Your task to perform on an android device: toggle location history Image 0: 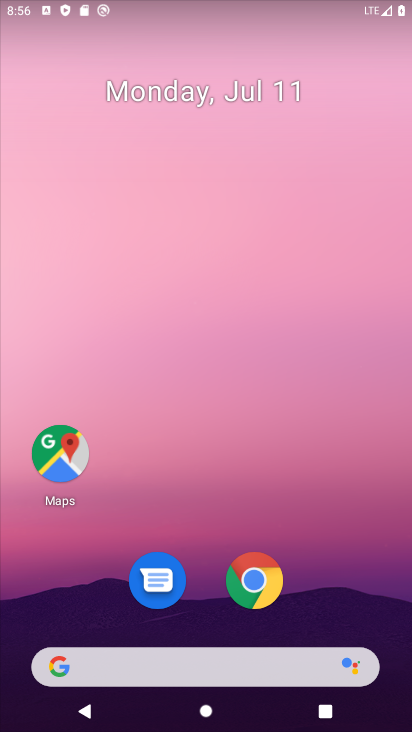
Step 0: drag from (318, 565) to (295, 0)
Your task to perform on an android device: toggle location history Image 1: 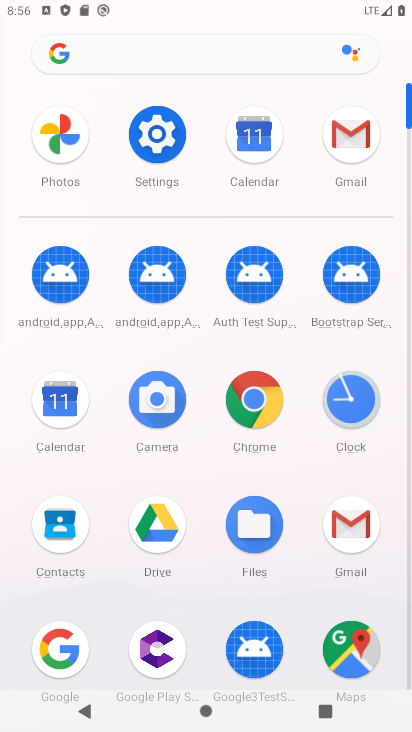
Step 1: click (163, 141)
Your task to perform on an android device: toggle location history Image 2: 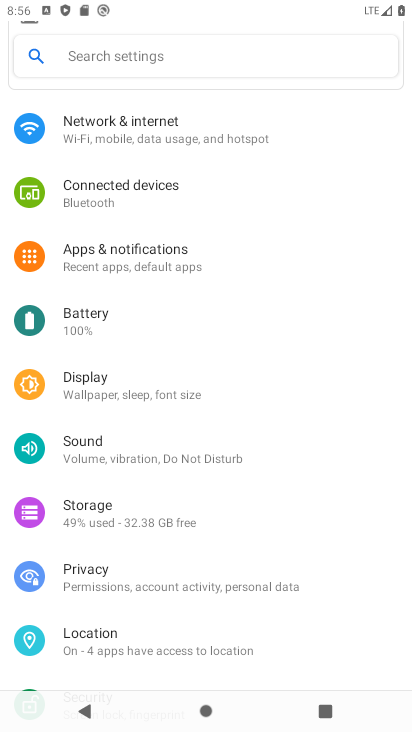
Step 2: click (127, 643)
Your task to perform on an android device: toggle location history Image 3: 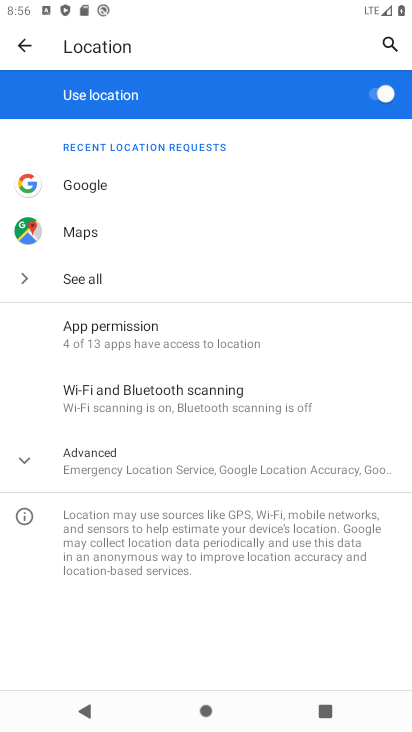
Step 3: click (27, 458)
Your task to perform on an android device: toggle location history Image 4: 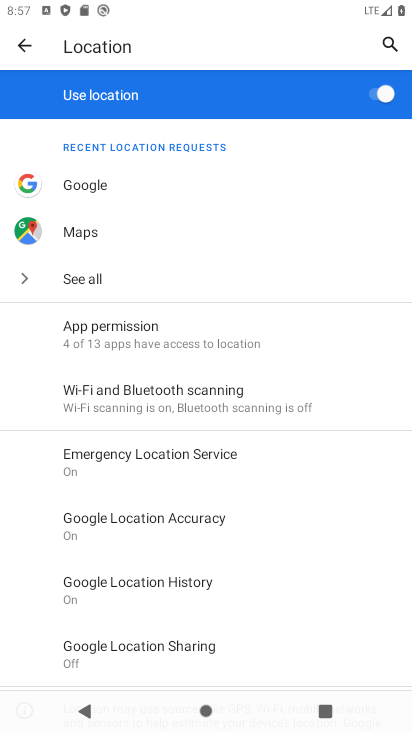
Step 4: click (115, 593)
Your task to perform on an android device: toggle location history Image 5: 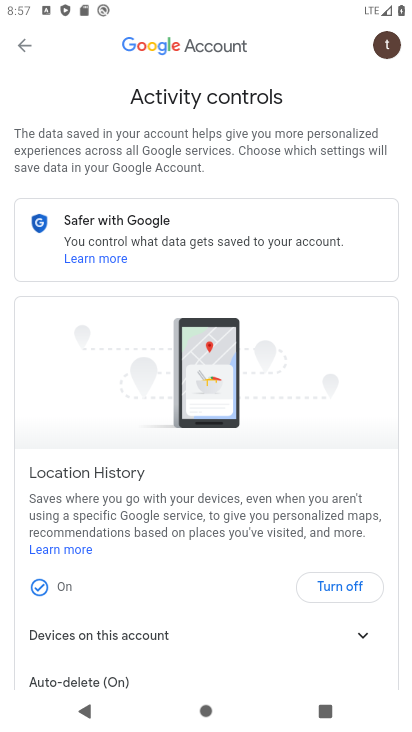
Step 5: click (327, 587)
Your task to perform on an android device: toggle location history Image 6: 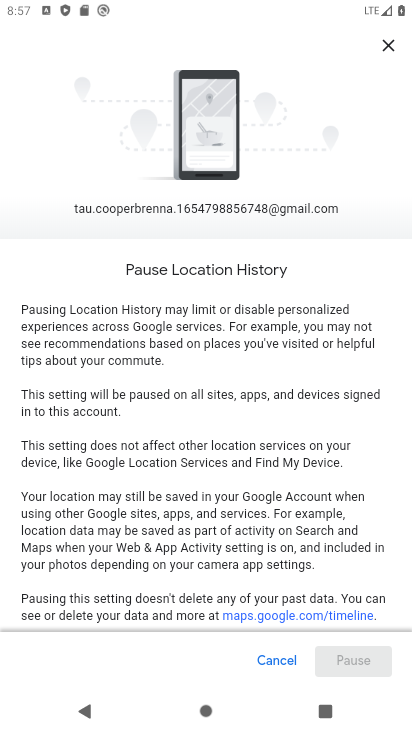
Step 6: drag from (322, 565) to (320, 90)
Your task to perform on an android device: toggle location history Image 7: 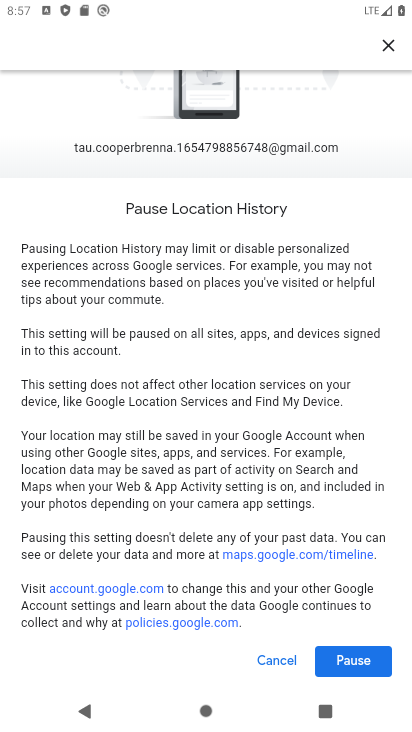
Step 7: click (366, 662)
Your task to perform on an android device: toggle location history Image 8: 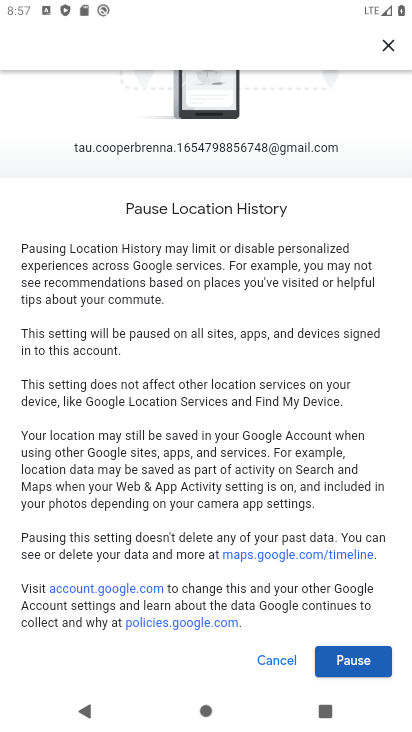
Step 8: click (366, 660)
Your task to perform on an android device: toggle location history Image 9: 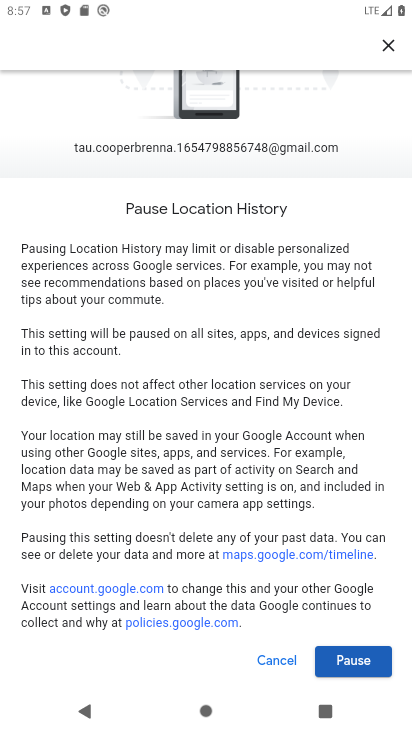
Step 9: click (366, 659)
Your task to perform on an android device: toggle location history Image 10: 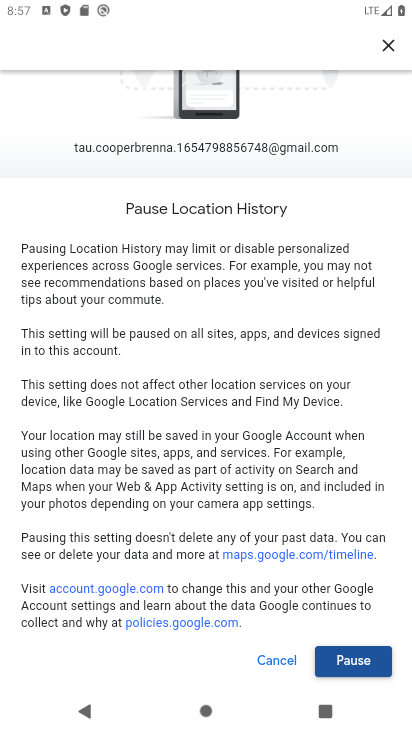
Step 10: click (366, 659)
Your task to perform on an android device: toggle location history Image 11: 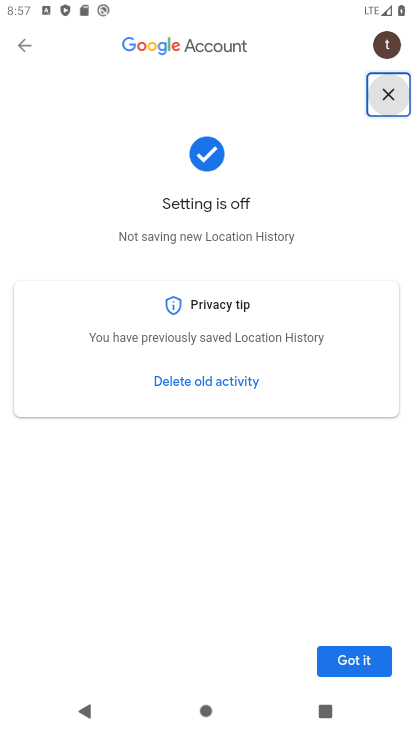
Step 11: click (368, 665)
Your task to perform on an android device: toggle location history Image 12: 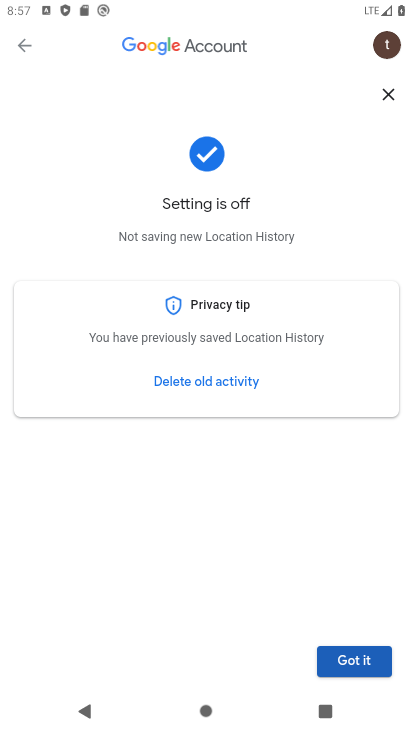
Step 12: click (340, 665)
Your task to perform on an android device: toggle location history Image 13: 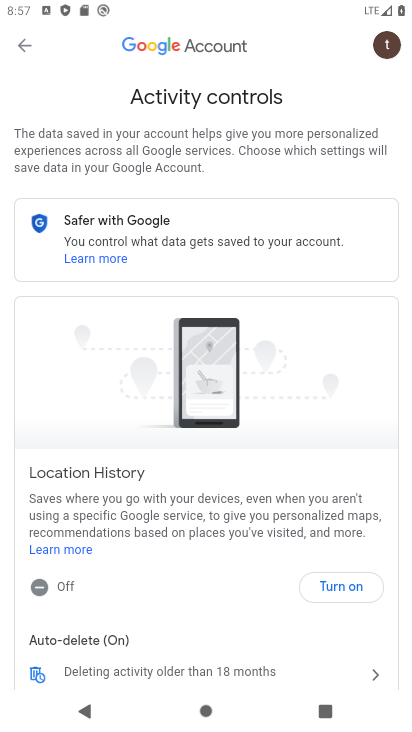
Step 13: task complete